Your task to perform on an android device: Open calendar and show me the second week of next month Image 0: 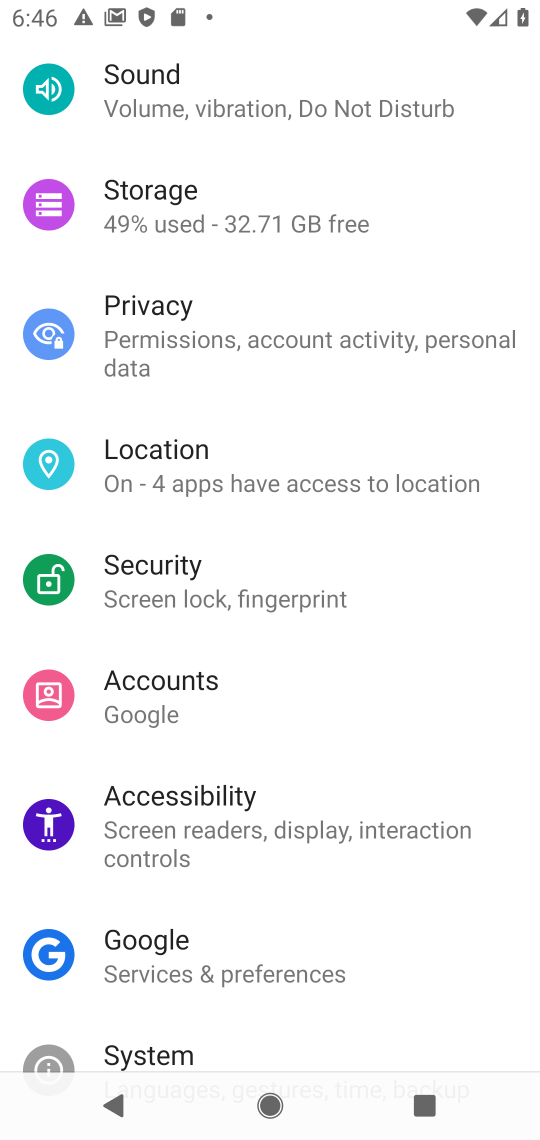
Step 0: press home button
Your task to perform on an android device: Open calendar and show me the second week of next month Image 1: 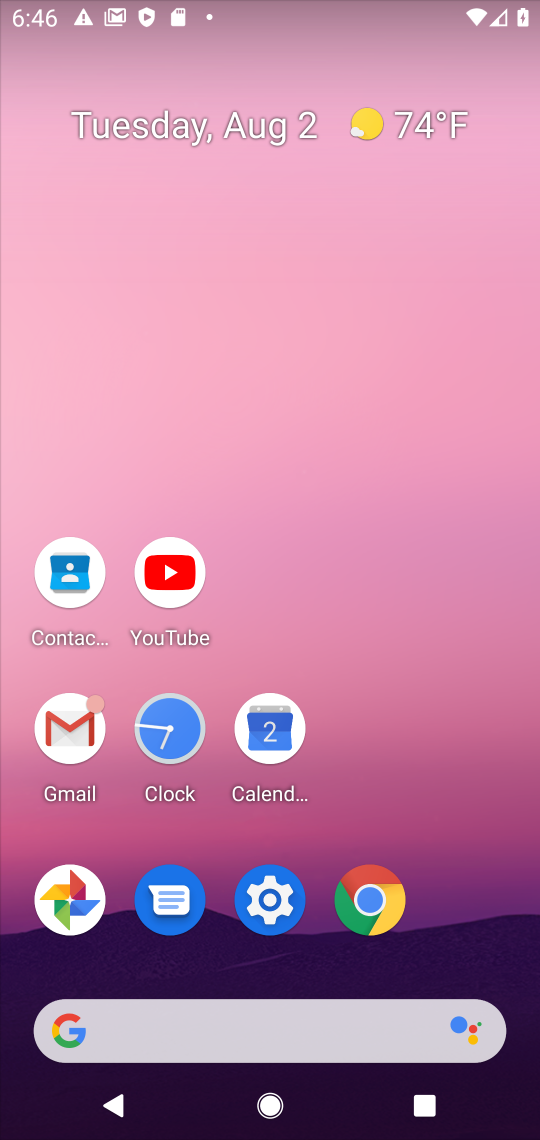
Step 1: click (270, 733)
Your task to perform on an android device: Open calendar and show me the second week of next month Image 2: 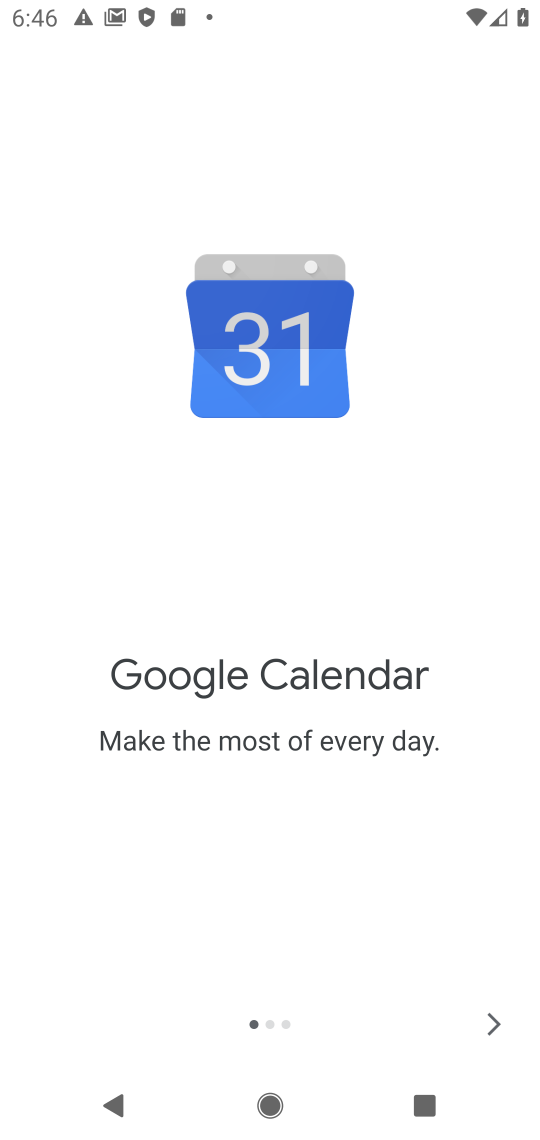
Step 2: click (496, 1023)
Your task to perform on an android device: Open calendar and show me the second week of next month Image 3: 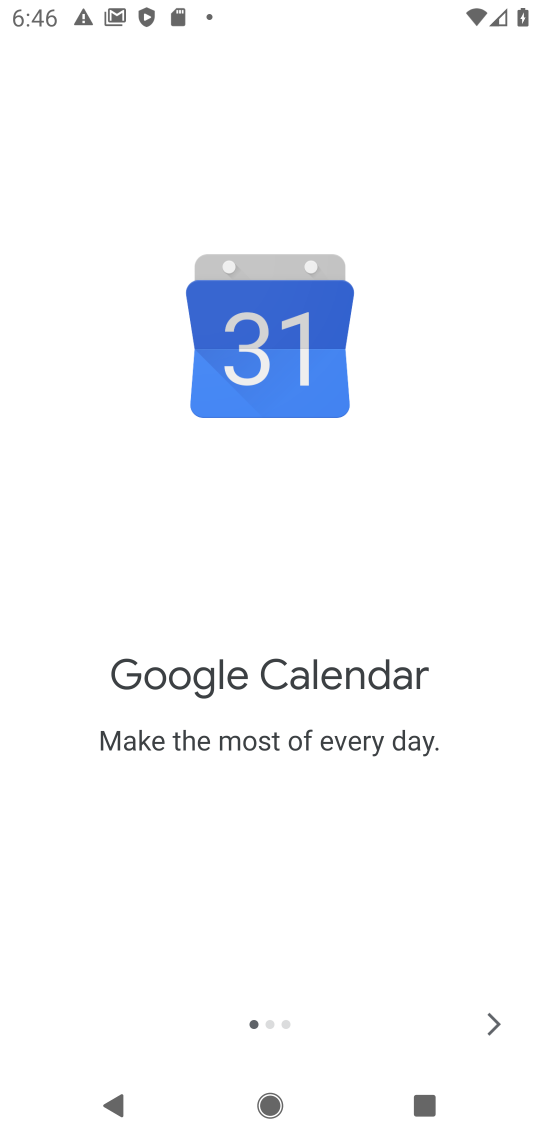
Step 3: click (496, 1023)
Your task to perform on an android device: Open calendar and show me the second week of next month Image 4: 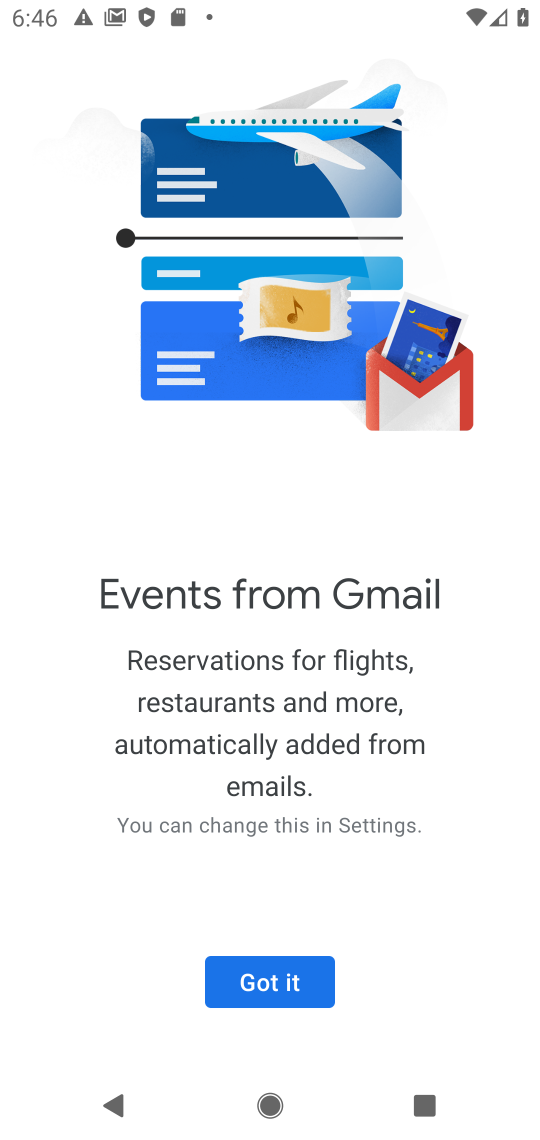
Step 4: click (280, 983)
Your task to perform on an android device: Open calendar and show me the second week of next month Image 5: 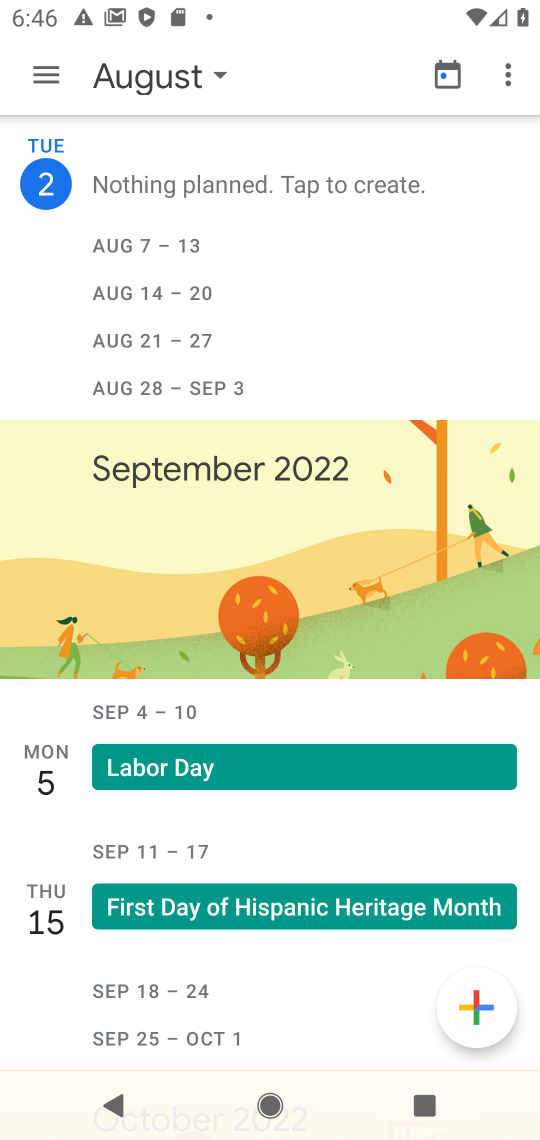
Step 5: click (48, 73)
Your task to perform on an android device: Open calendar and show me the second week of next month Image 6: 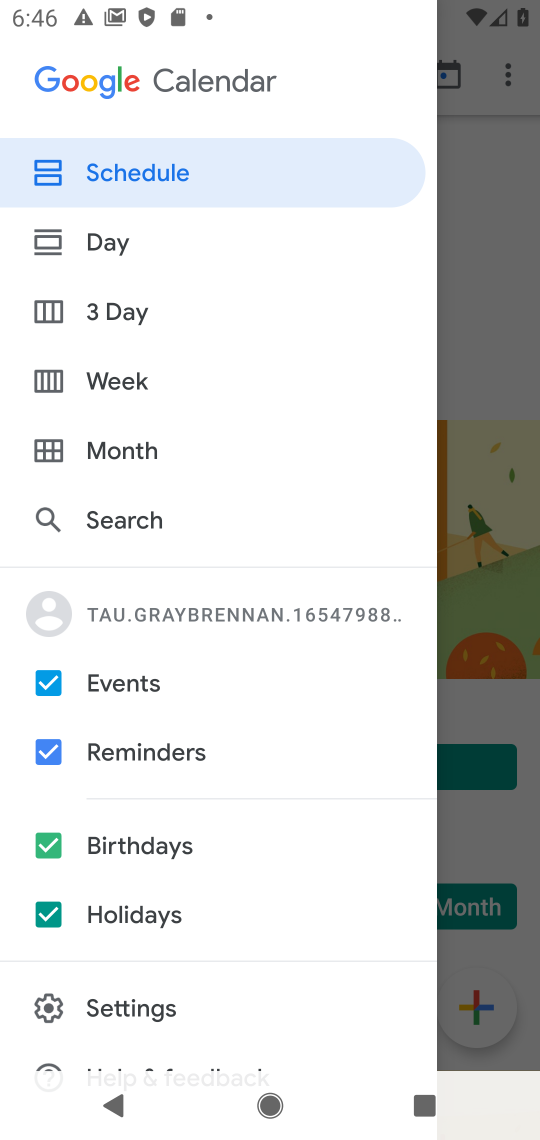
Step 6: click (116, 375)
Your task to perform on an android device: Open calendar and show me the second week of next month Image 7: 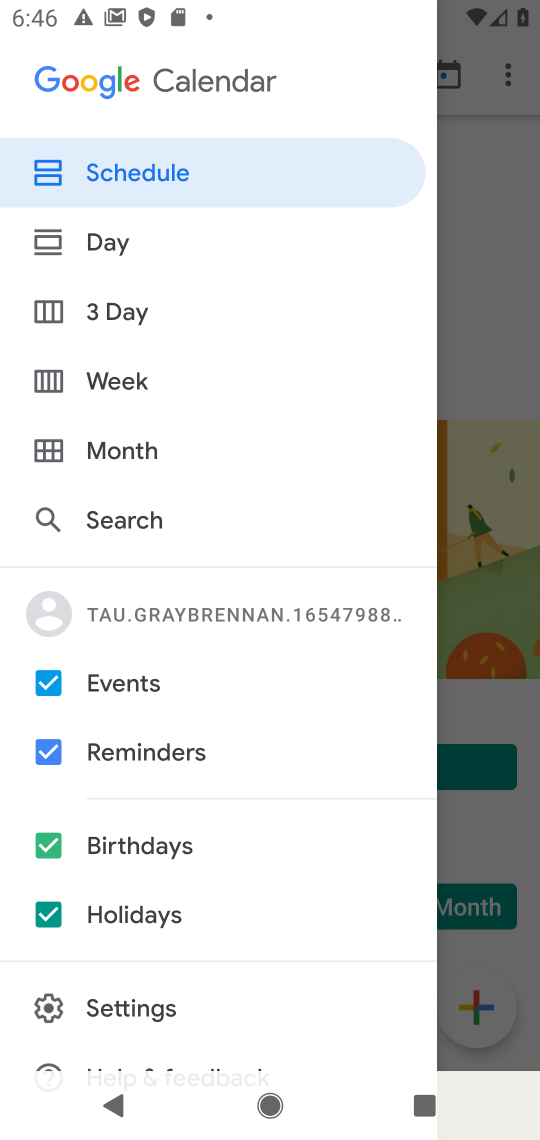
Step 7: click (107, 368)
Your task to perform on an android device: Open calendar and show me the second week of next month Image 8: 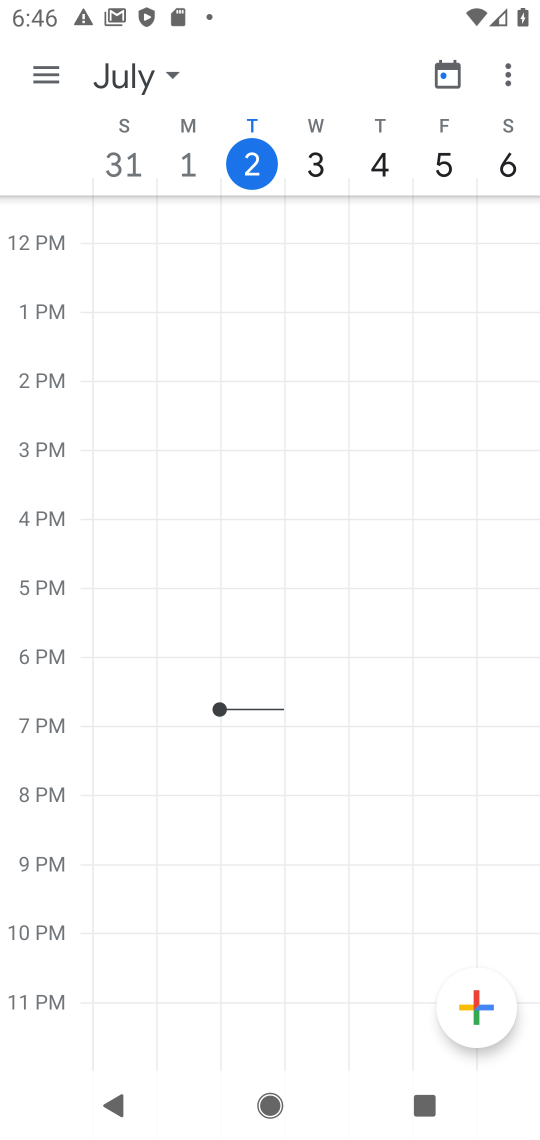
Step 8: click (171, 71)
Your task to perform on an android device: Open calendar and show me the second week of next month Image 9: 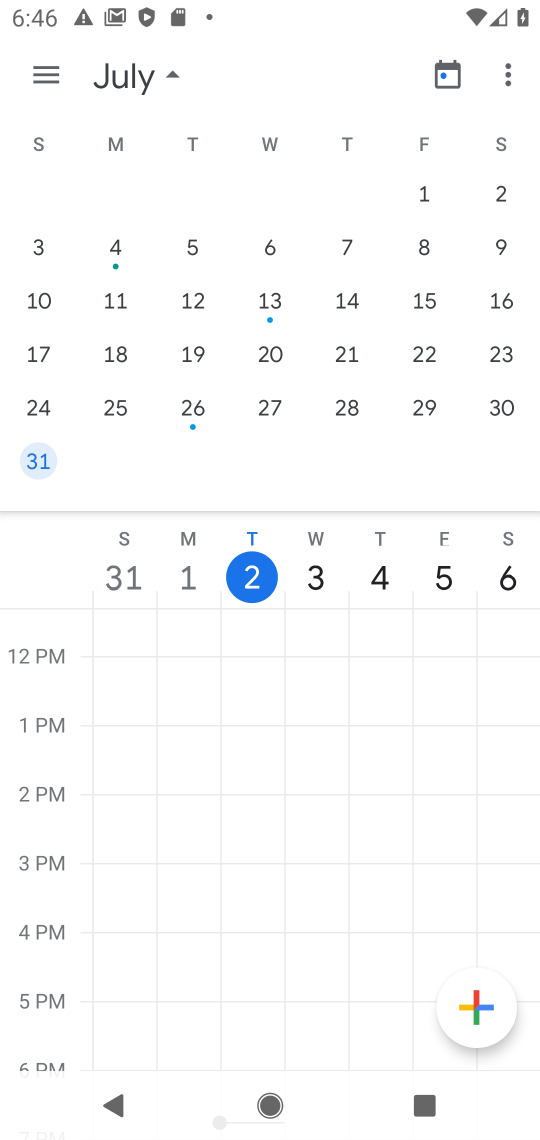
Step 9: drag from (515, 308) to (5, 217)
Your task to perform on an android device: Open calendar and show me the second week of next month Image 10: 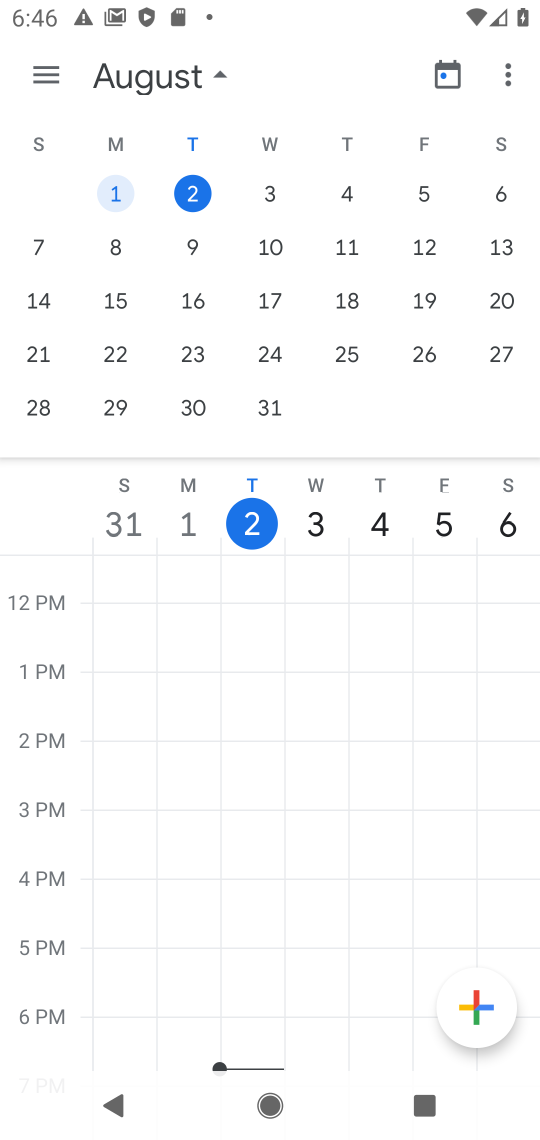
Step 10: click (190, 245)
Your task to perform on an android device: Open calendar and show me the second week of next month Image 11: 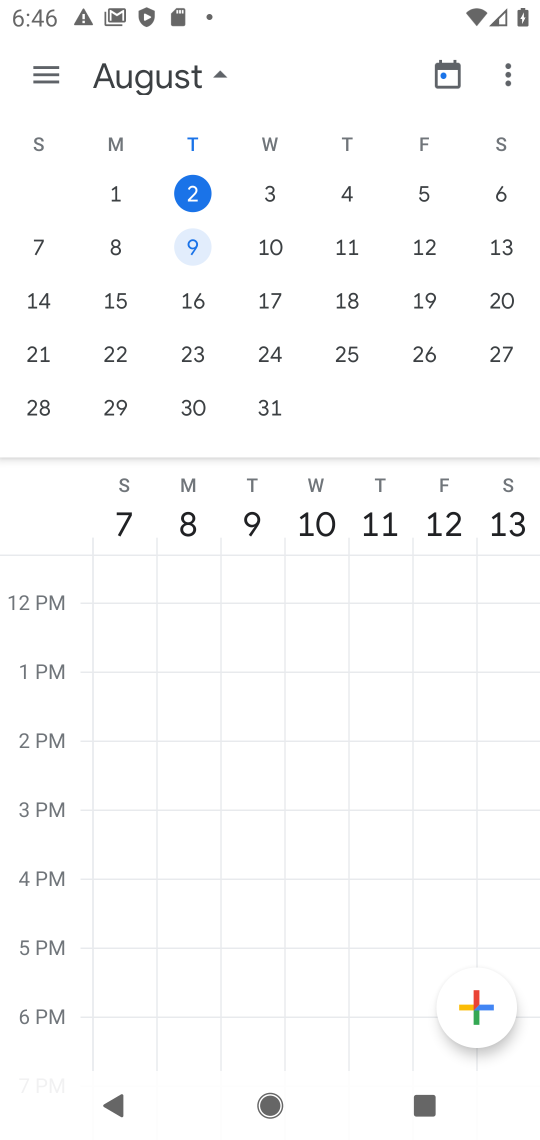
Step 11: drag from (478, 289) to (47, 261)
Your task to perform on an android device: Open calendar and show me the second week of next month Image 12: 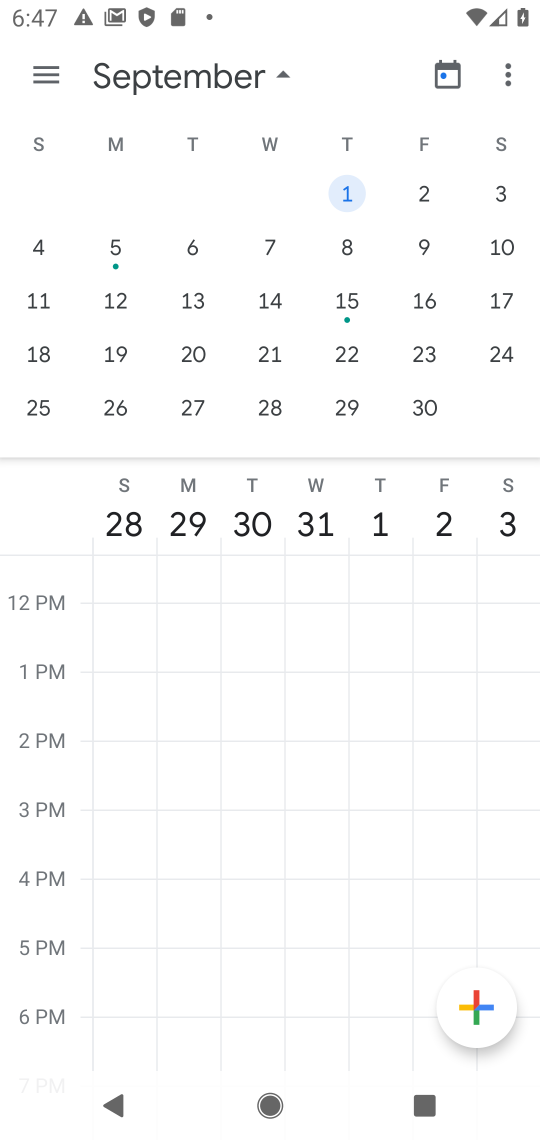
Step 12: click (187, 249)
Your task to perform on an android device: Open calendar and show me the second week of next month Image 13: 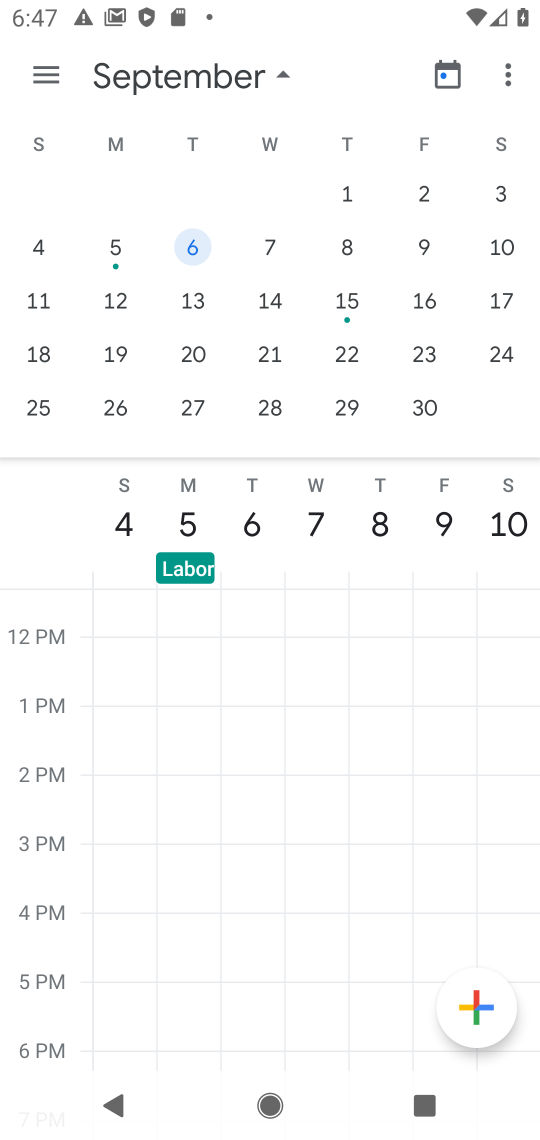
Step 13: task complete